Your task to perform on an android device: Set the phone to "Do not disturb". Image 0: 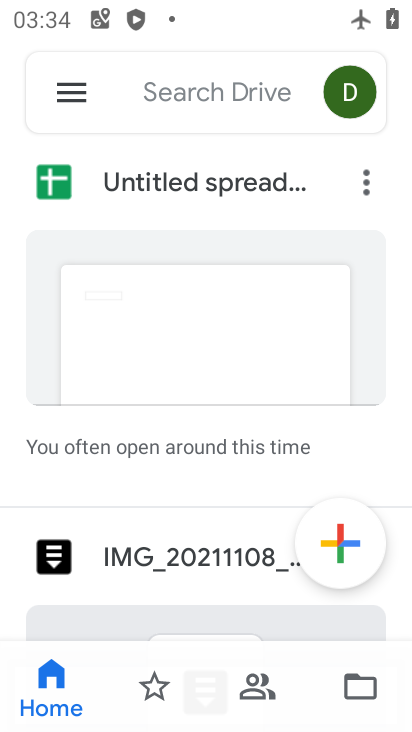
Step 0: press home button
Your task to perform on an android device: Set the phone to "Do not disturb". Image 1: 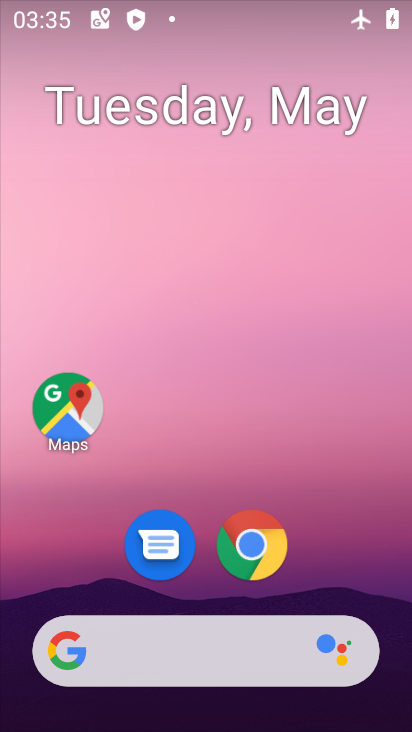
Step 1: drag from (390, 606) to (310, 91)
Your task to perform on an android device: Set the phone to "Do not disturb". Image 2: 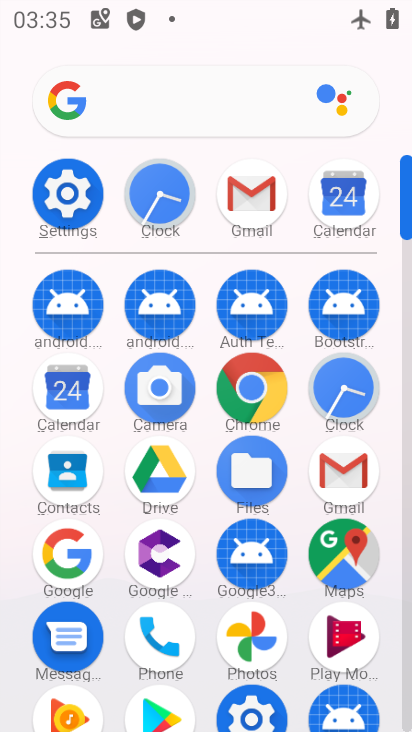
Step 2: click (405, 689)
Your task to perform on an android device: Set the phone to "Do not disturb". Image 3: 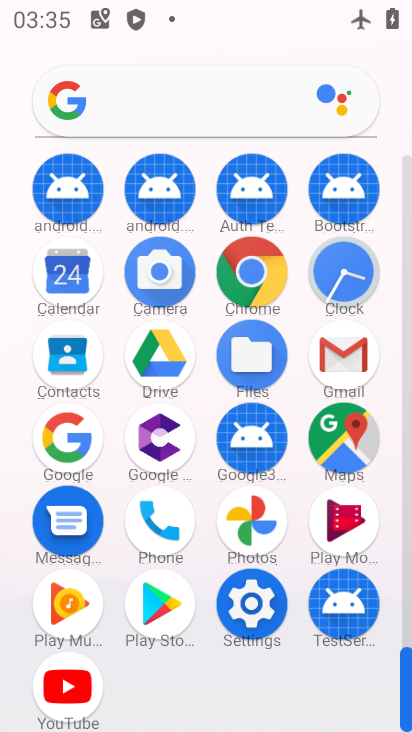
Step 3: click (254, 607)
Your task to perform on an android device: Set the phone to "Do not disturb". Image 4: 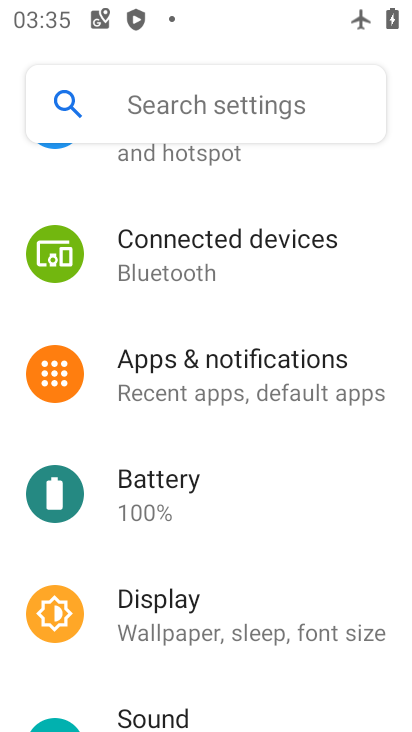
Step 4: drag from (323, 605) to (272, 184)
Your task to perform on an android device: Set the phone to "Do not disturb". Image 5: 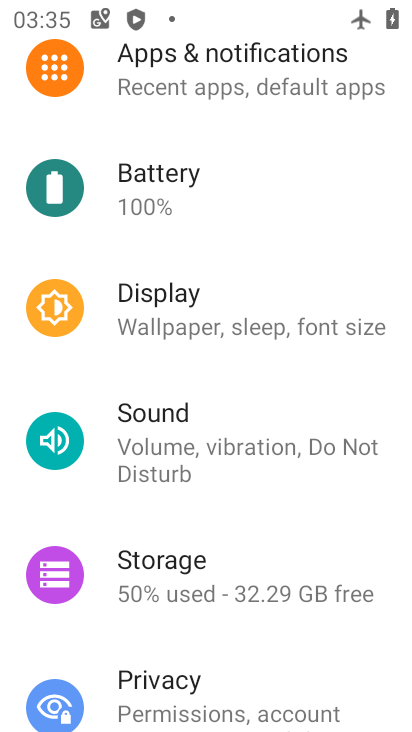
Step 5: click (159, 448)
Your task to perform on an android device: Set the phone to "Do not disturb". Image 6: 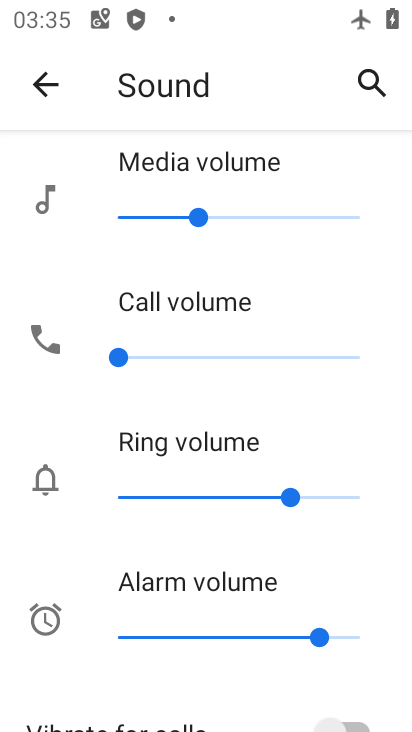
Step 6: drag from (355, 661) to (296, 166)
Your task to perform on an android device: Set the phone to "Do not disturb". Image 7: 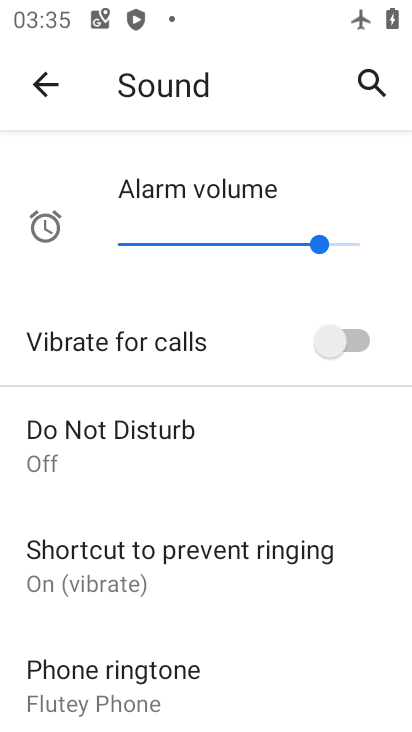
Step 7: click (83, 436)
Your task to perform on an android device: Set the phone to "Do not disturb". Image 8: 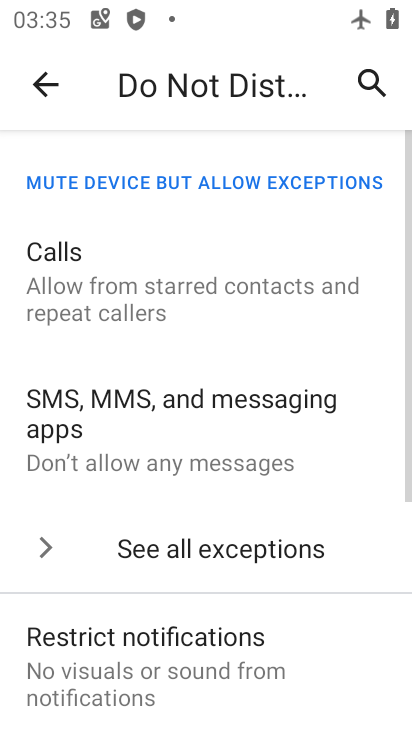
Step 8: drag from (281, 659) to (258, 206)
Your task to perform on an android device: Set the phone to "Do not disturb". Image 9: 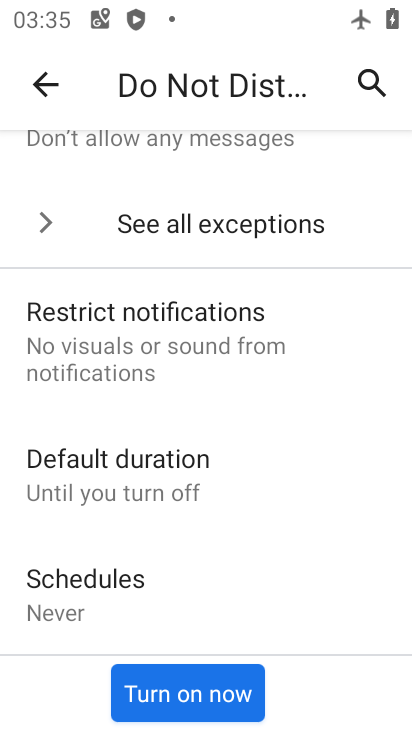
Step 9: click (177, 704)
Your task to perform on an android device: Set the phone to "Do not disturb". Image 10: 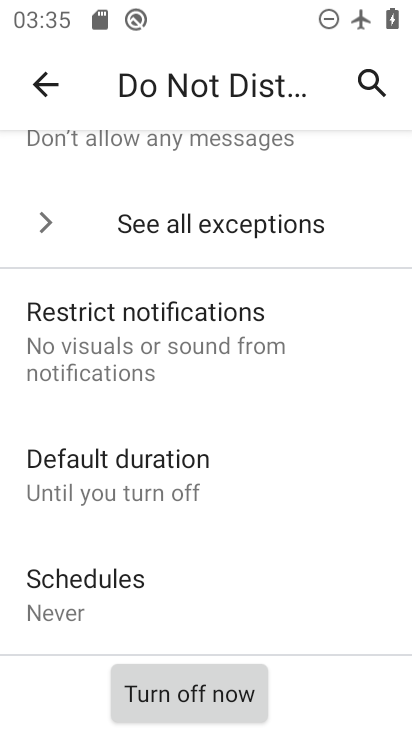
Step 10: task complete